Your task to perform on an android device: turn off picture-in-picture Image 0: 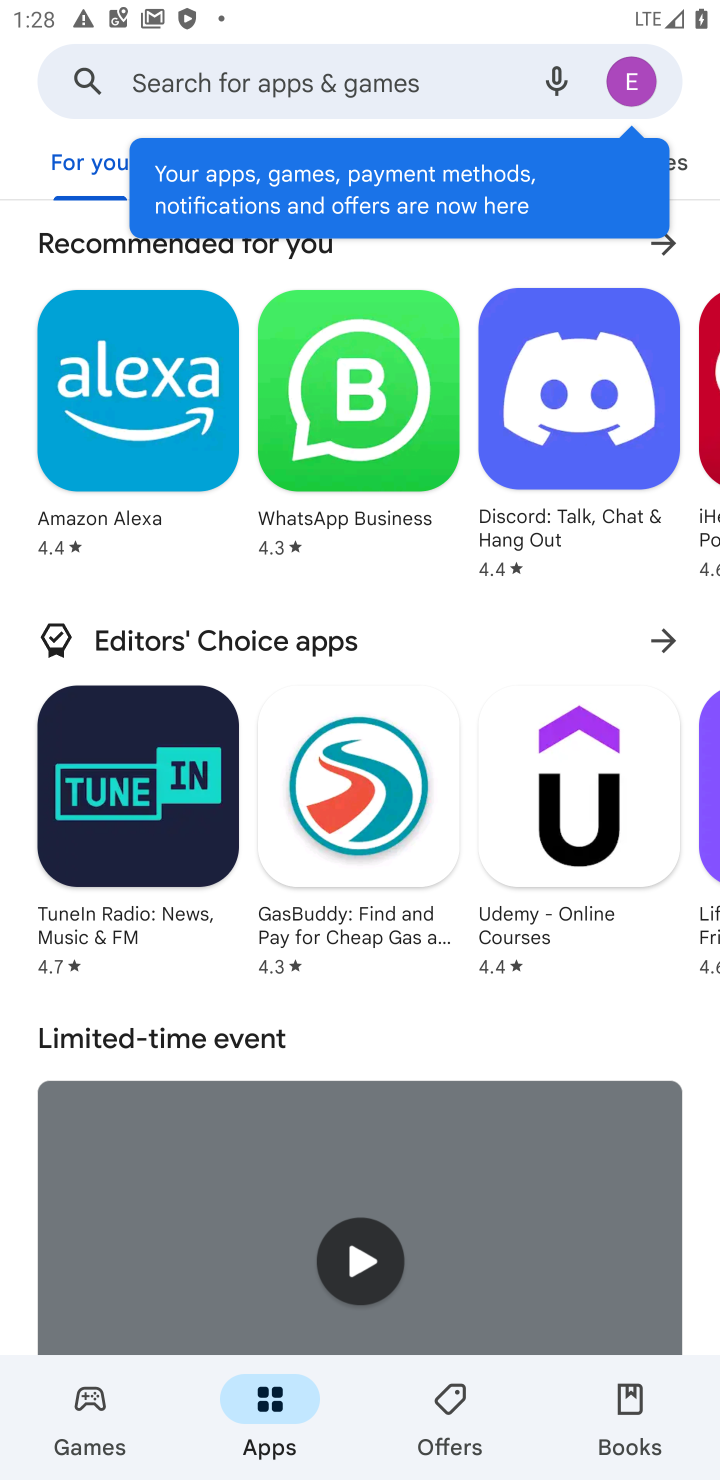
Step 0: press home button
Your task to perform on an android device: turn off picture-in-picture Image 1: 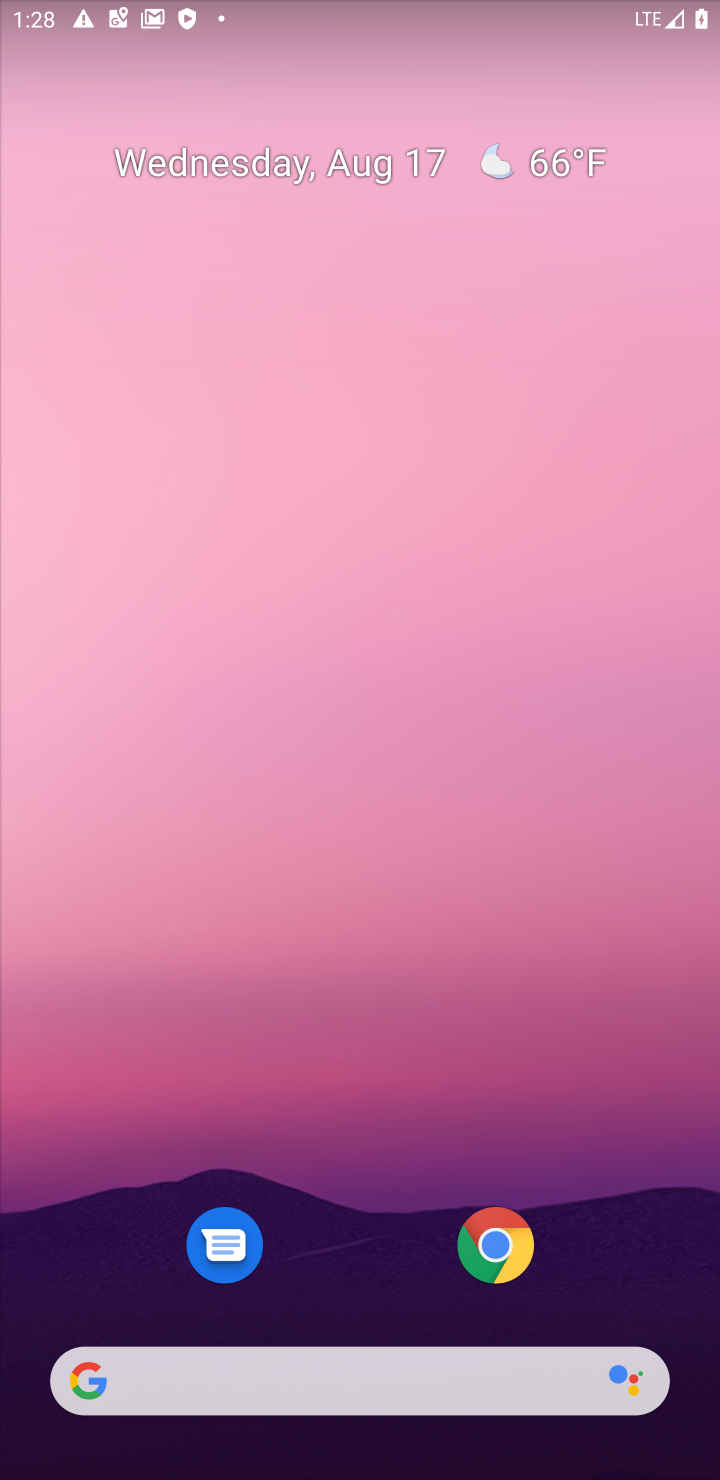
Step 1: drag from (381, 1145) to (361, 216)
Your task to perform on an android device: turn off picture-in-picture Image 2: 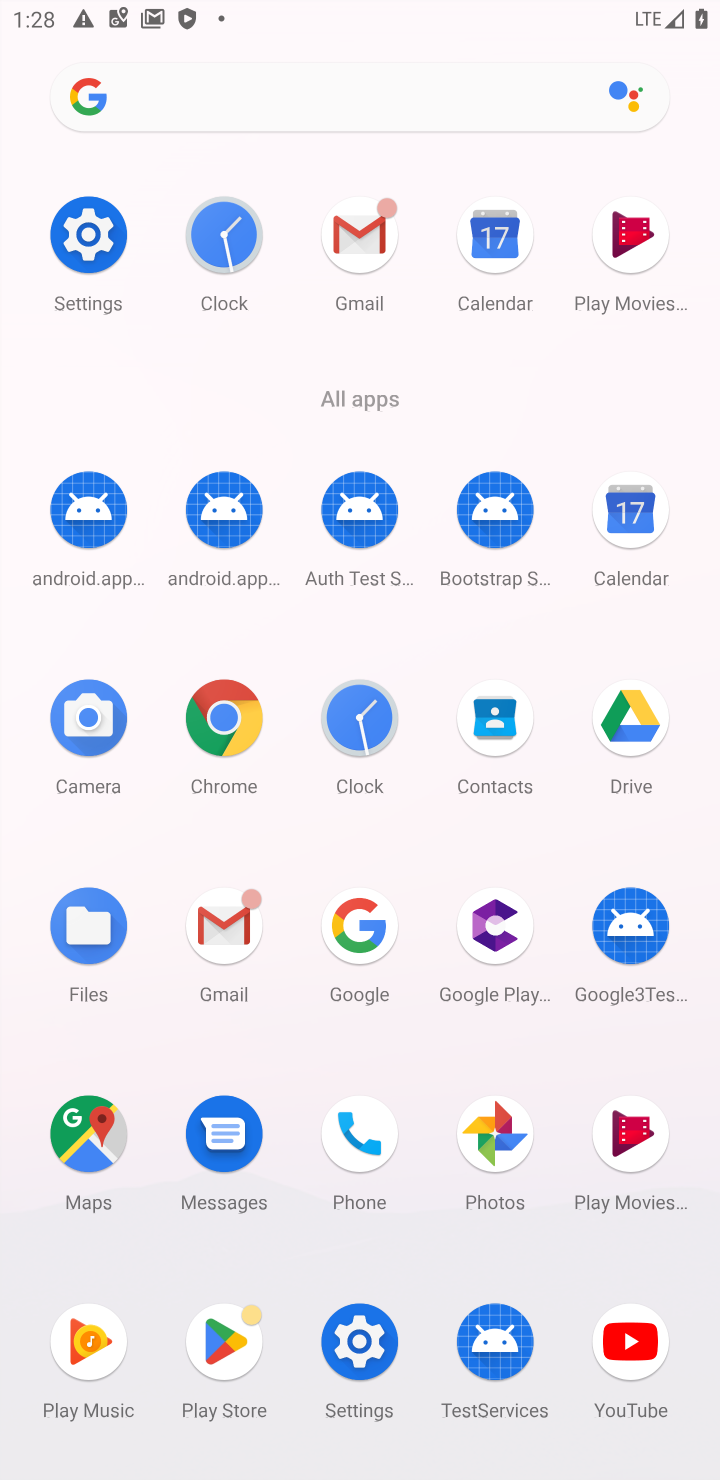
Step 2: click (361, 1335)
Your task to perform on an android device: turn off picture-in-picture Image 3: 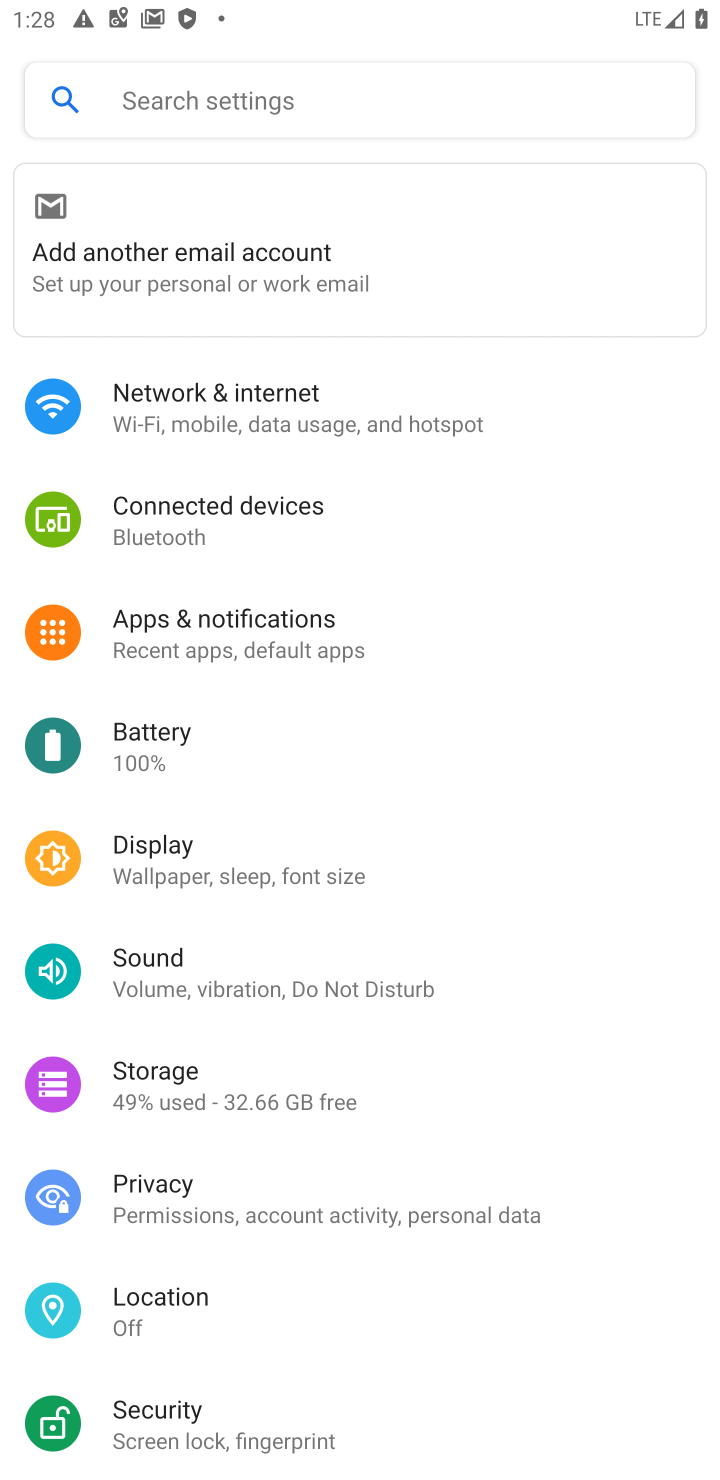
Step 3: click (252, 638)
Your task to perform on an android device: turn off picture-in-picture Image 4: 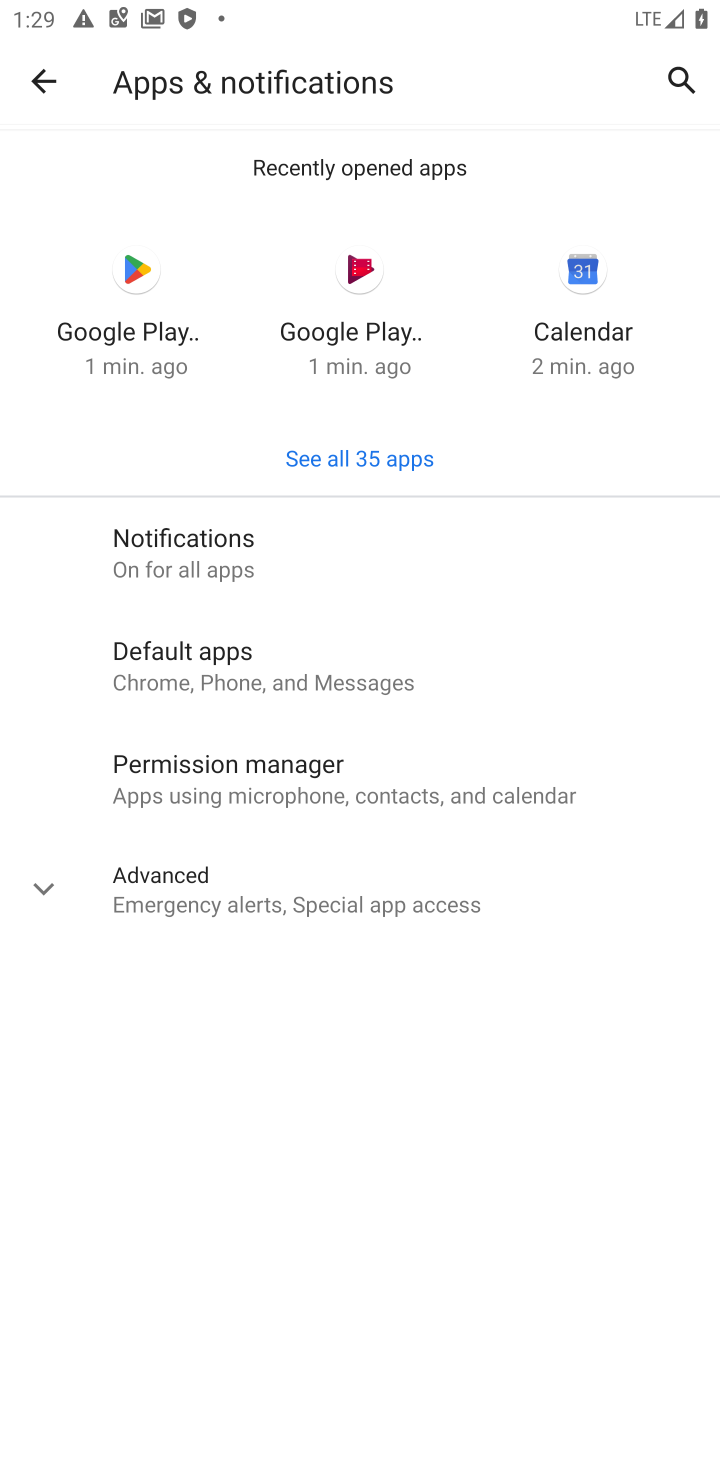
Step 4: click (206, 896)
Your task to perform on an android device: turn off picture-in-picture Image 5: 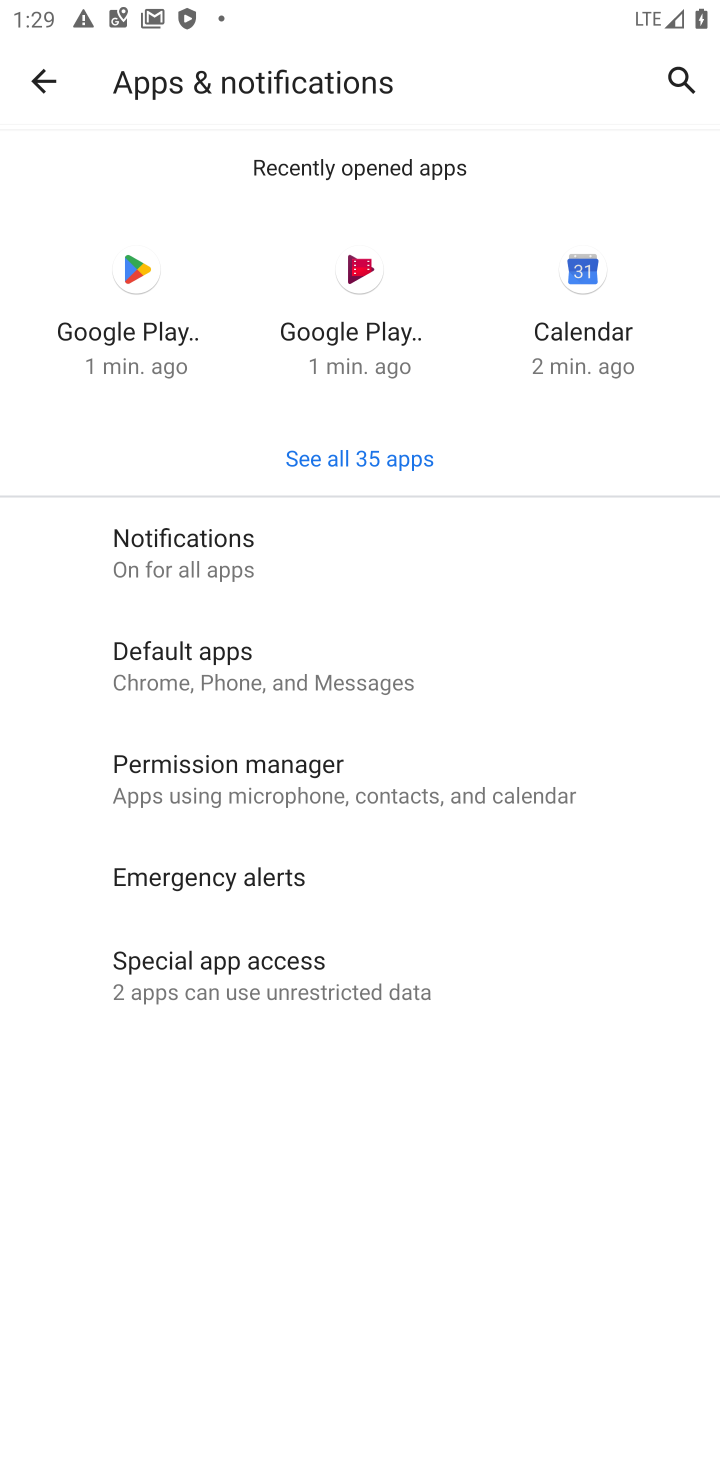
Step 5: click (188, 970)
Your task to perform on an android device: turn off picture-in-picture Image 6: 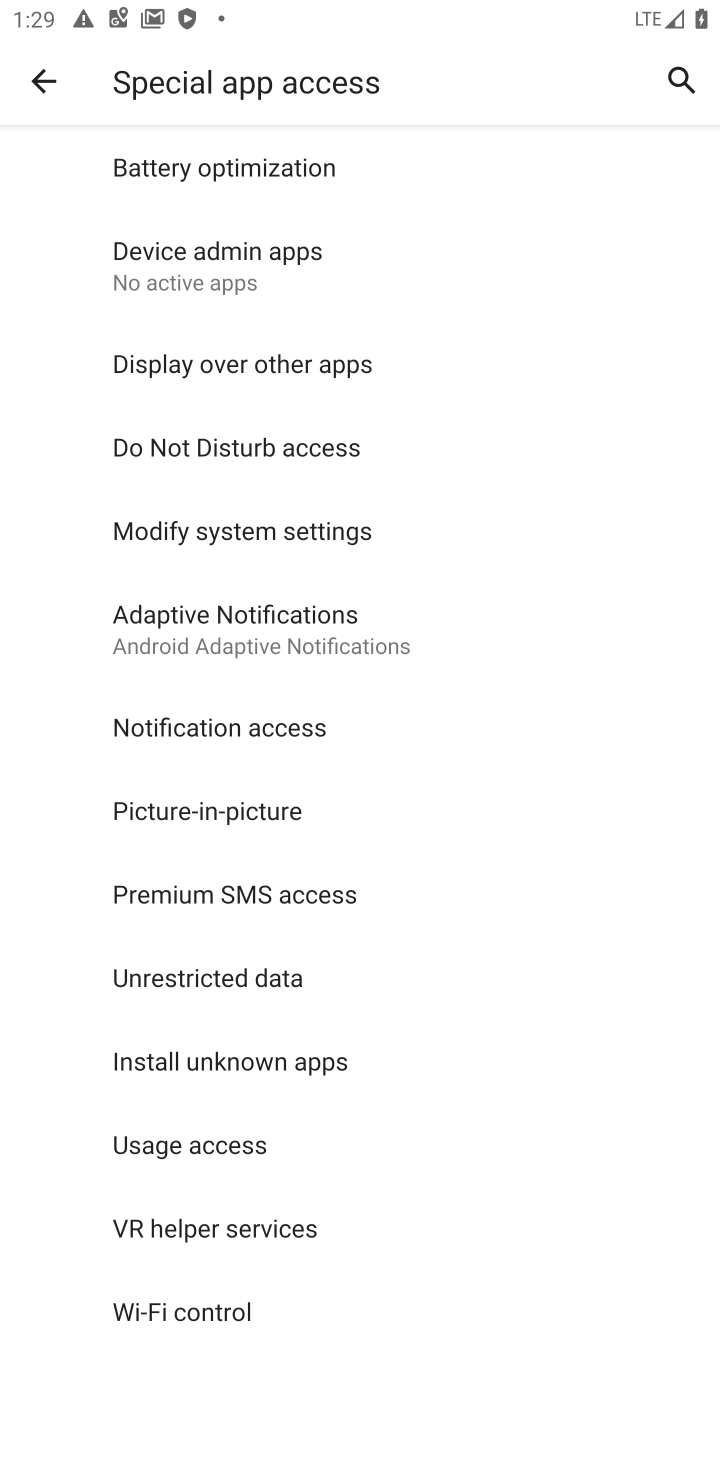
Step 6: click (199, 815)
Your task to perform on an android device: turn off picture-in-picture Image 7: 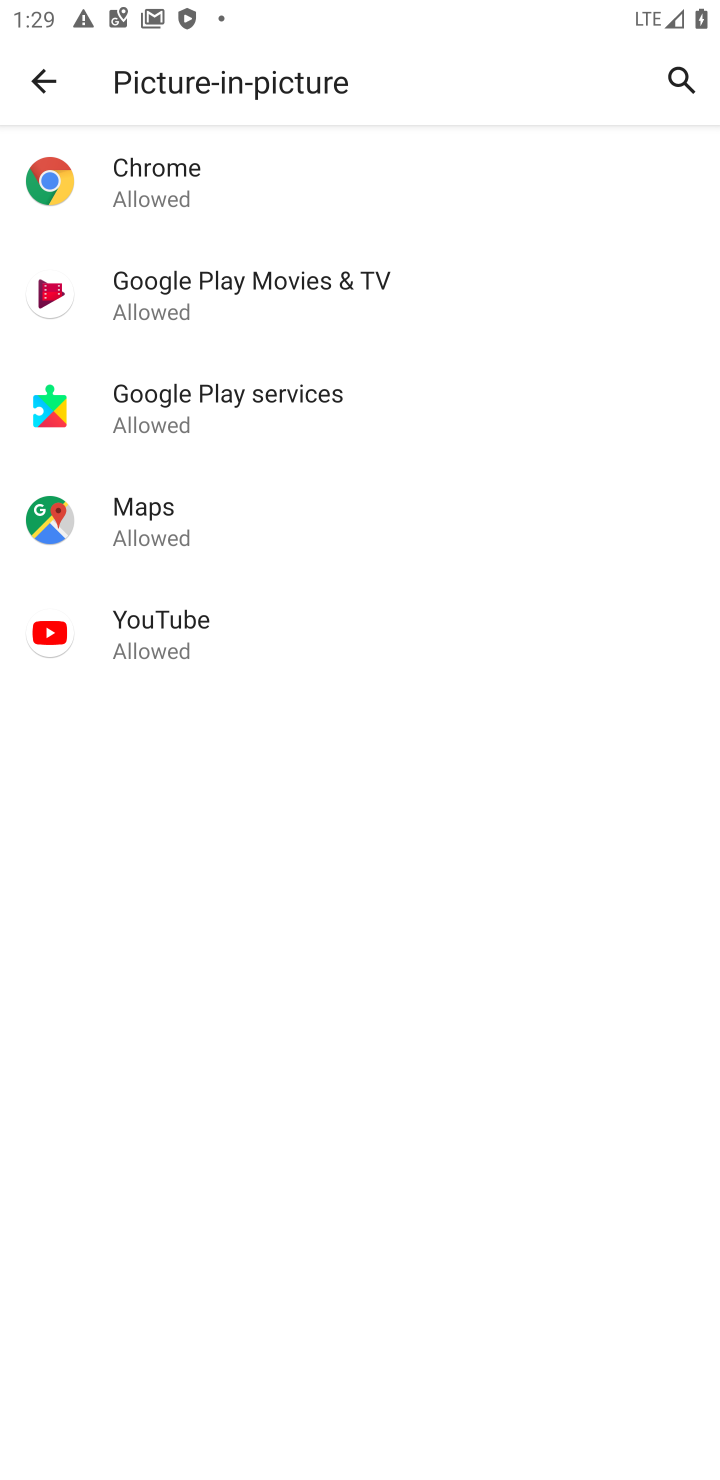
Step 7: click (126, 631)
Your task to perform on an android device: turn off picture-in-picture Image 8: 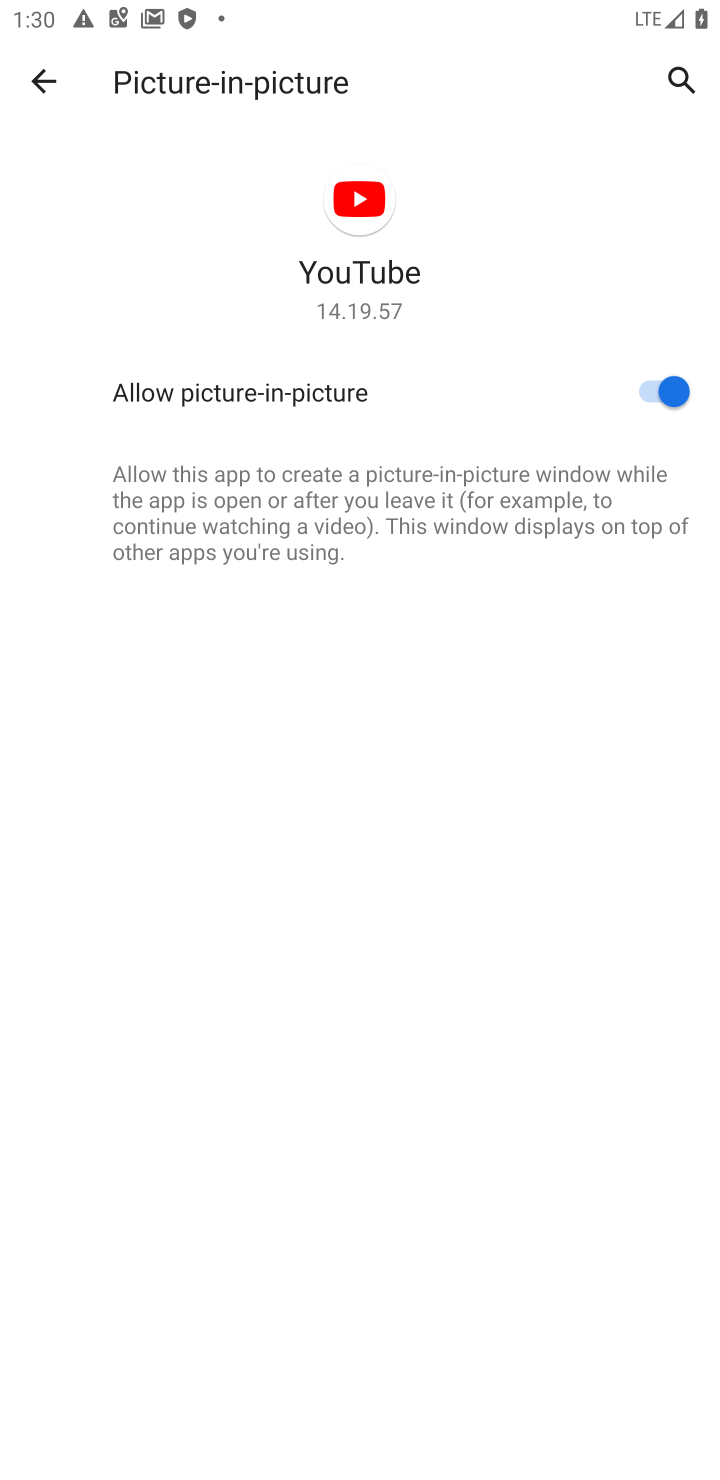
Step 8: click (651, 385)
Your task to perform on an android device: turn off picture-in-picture Image 9: 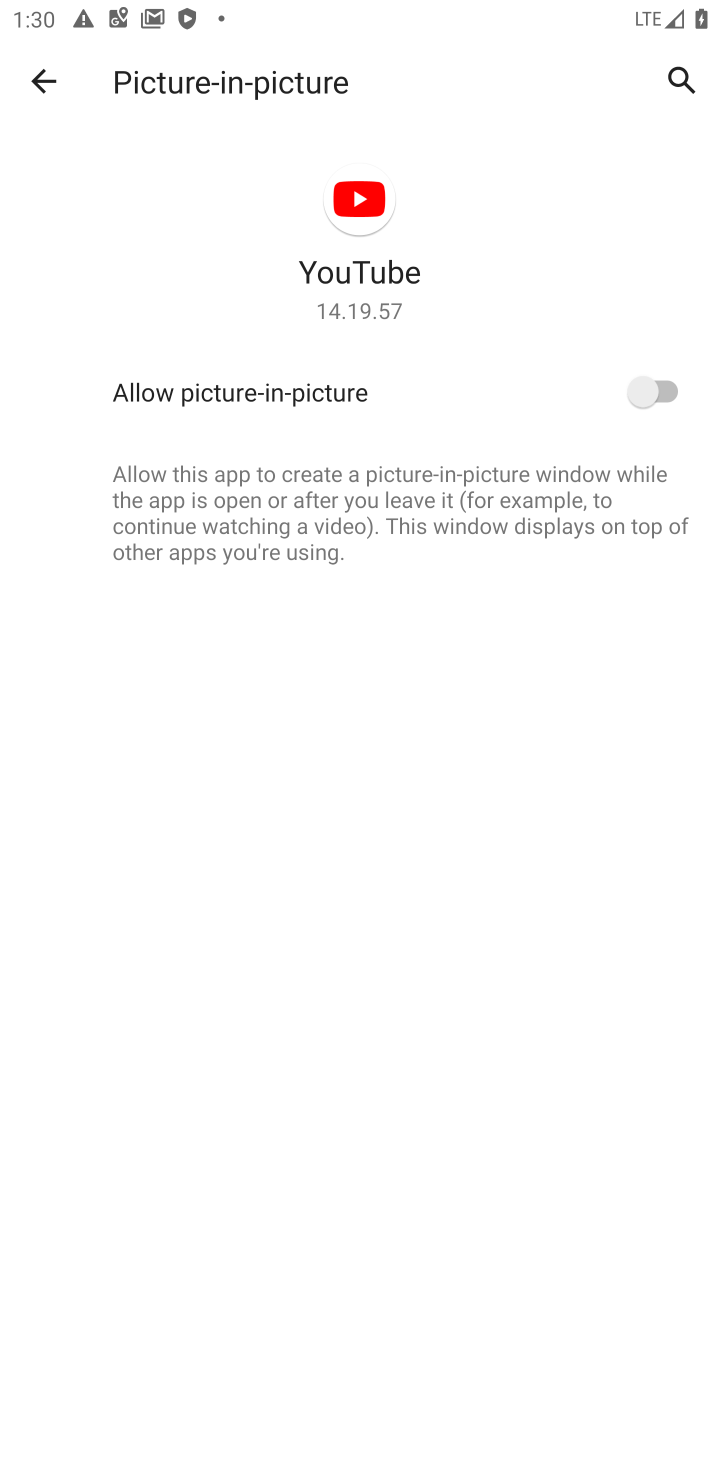
Step 9: task complete